Your task to perform on an android device: Search for sushi restaurants on Maps Image 0: 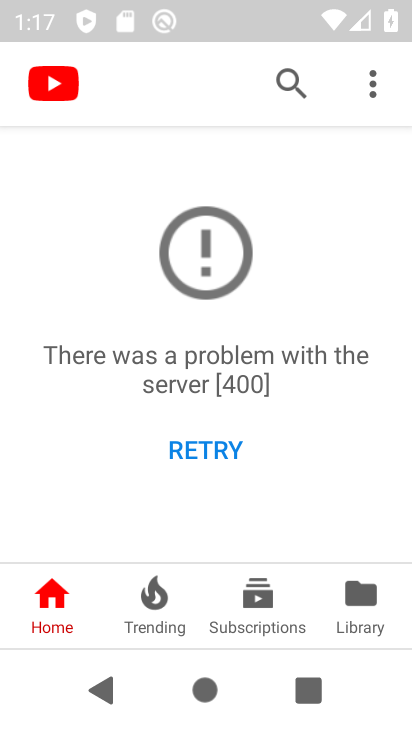
Step 0: press back button
Your task to perform on an android device: Search for sushi restaurants on Maps Image 1: 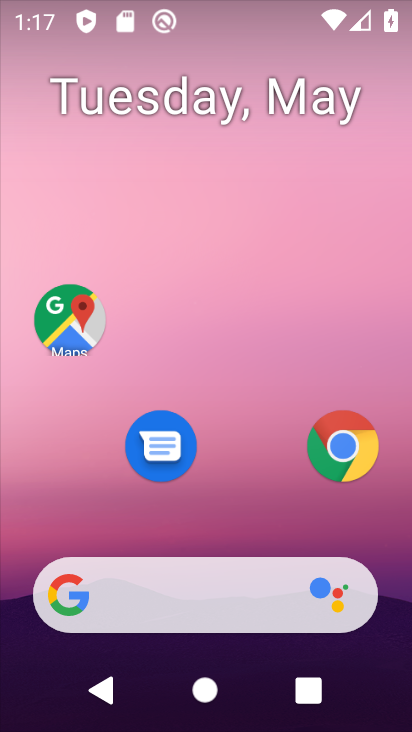
Step 1: drag from (181, 562) to (180, 11)
Your task to perform on an android device: Search for sushi restaurants on Maps Image 2: 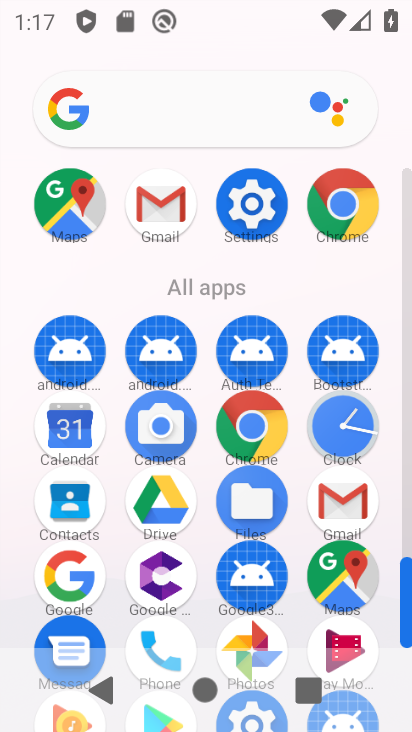
Step 2: click (352, 567)
Your task to perform on an android device: Search for sushi restaurants on Maps Image 3: 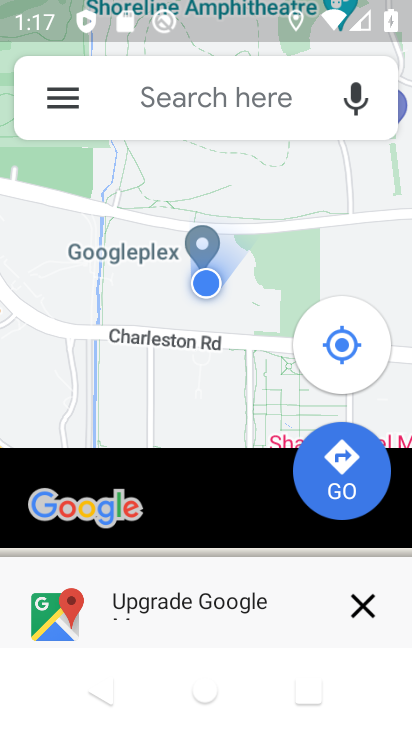
Step 3: click (189, 117)
Your task to perform on an android device: Search for sushi restaurants on Maps Image 4: 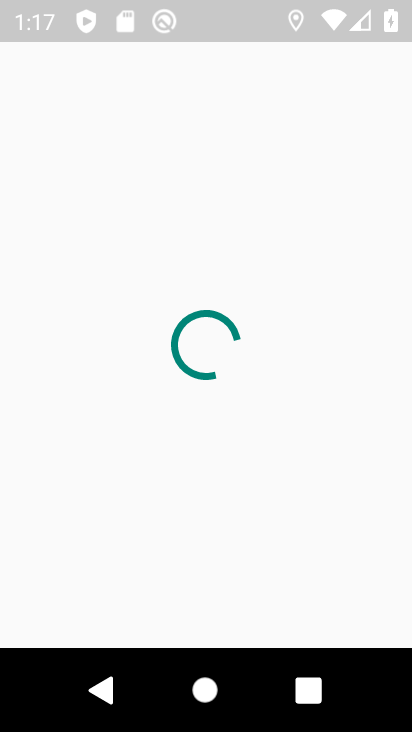
Step 4: click (189, 117)
Your task to perform on an android device: Search for sushi restaurants on Maps Image 5: 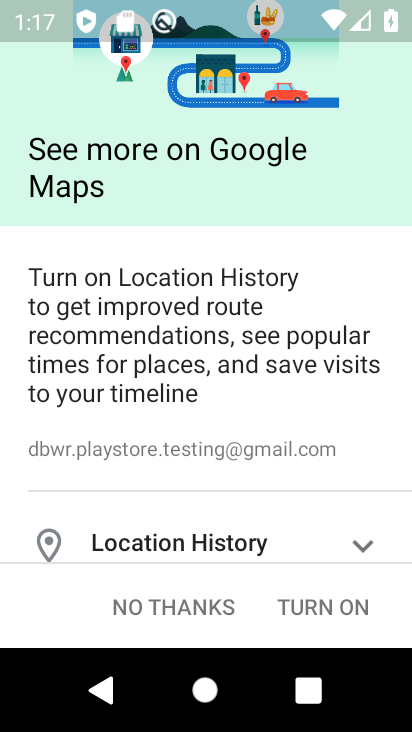
Step 5: click (306, 592)
Your task to perform on an android device: Search for sushi restaurants on Maps Image 6: 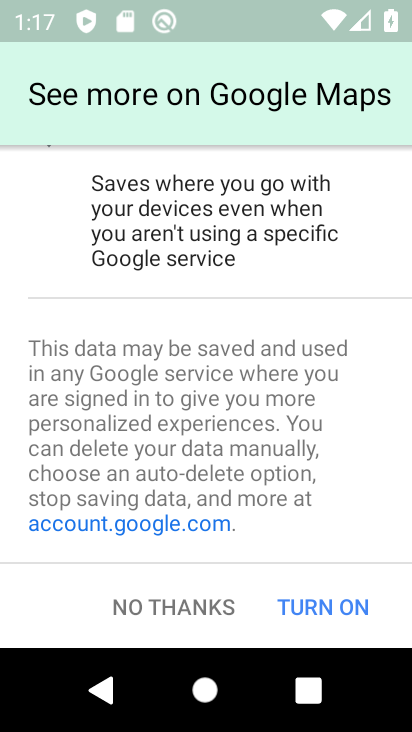
Step 6: click (302, 590)
Your task to perform on an android device: Search for sushi restaurants on Maps Image 7: 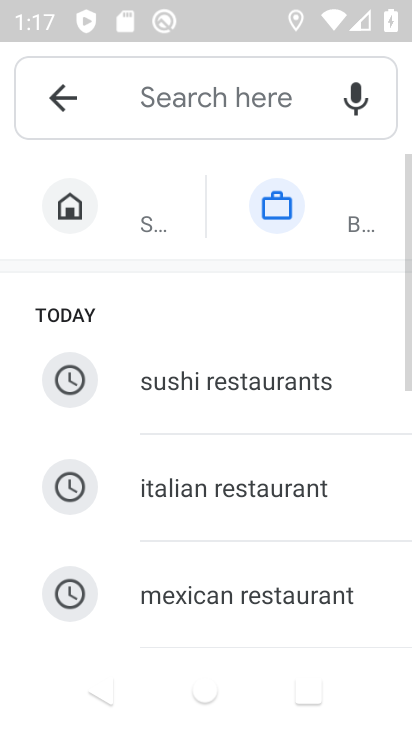
Step 7: click (208, 381)
Your task to perform on an android device: Search for sushi restaurants on Maps Image 8: 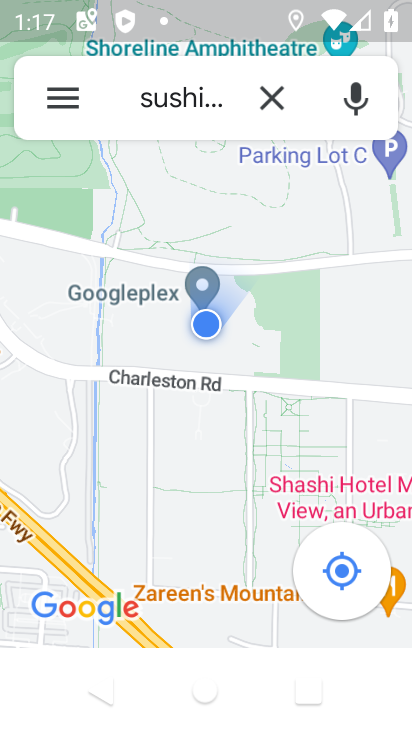
Step 8: task complete